Your task to perform on an android device: open wifi settings Image 0: 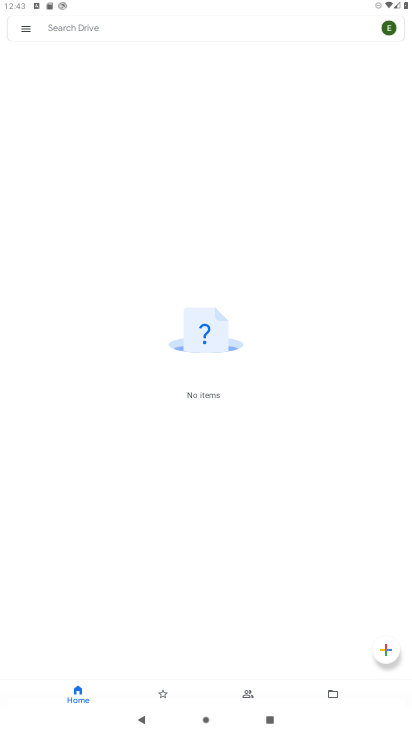
Step 0: press home button
Your task to perform on an android device: open wifi settings Image 1: 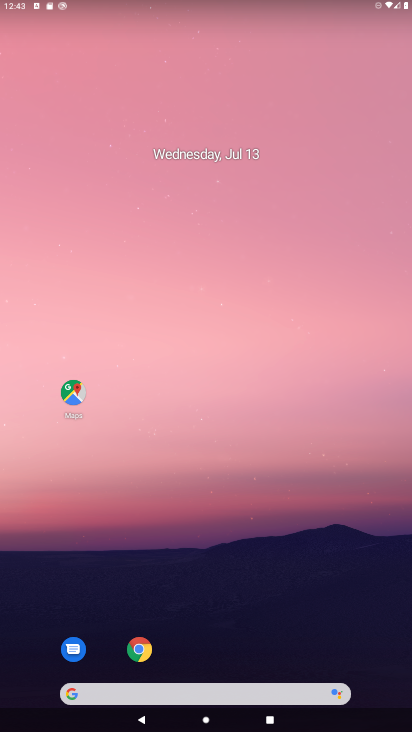
Step 1: drag from (370, 656) to (350, 144)
Your task to perform on an android device: open wifi settings Image 2: 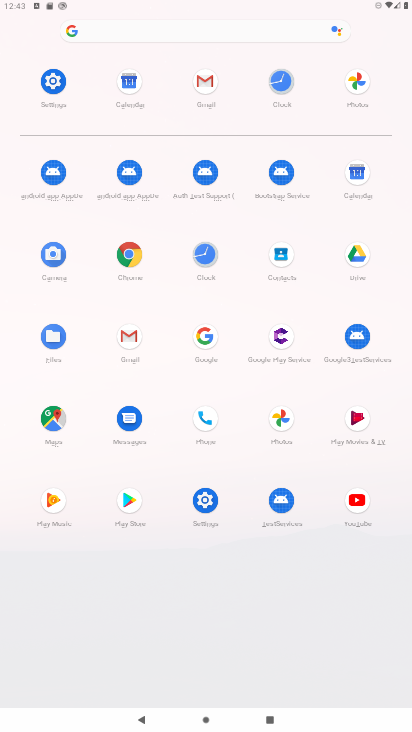
Step 2: click (205, 499)
Your task to perform on an android device: open wifi settings Image 3: 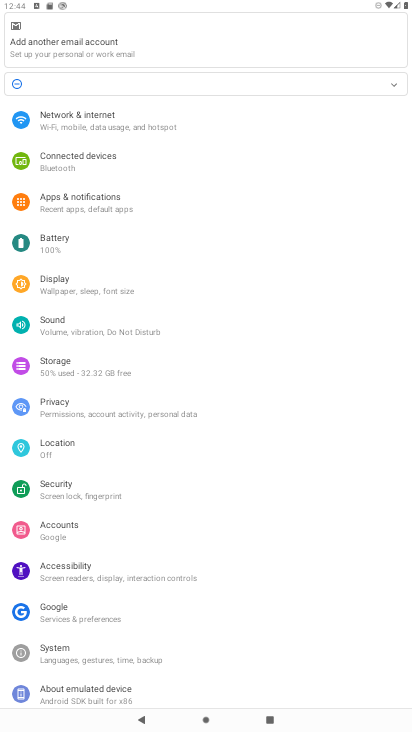
Step 3: click (69, 114)
Your task to perform on an android device: open wifi settings Image 4: 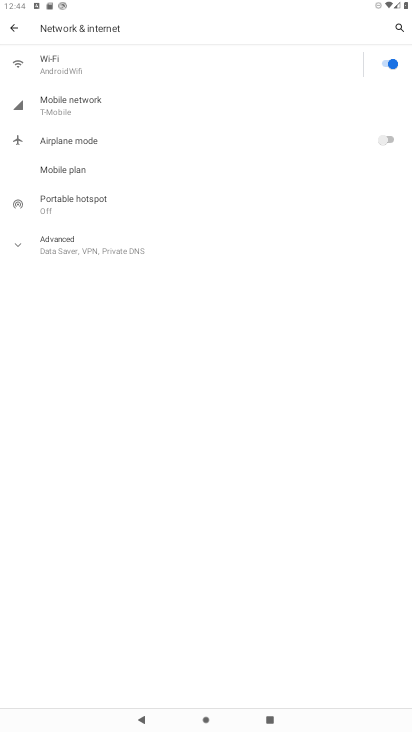
Step 4: click (37, 66)
Your task to perform on an android device: open wifi settings Image 5: 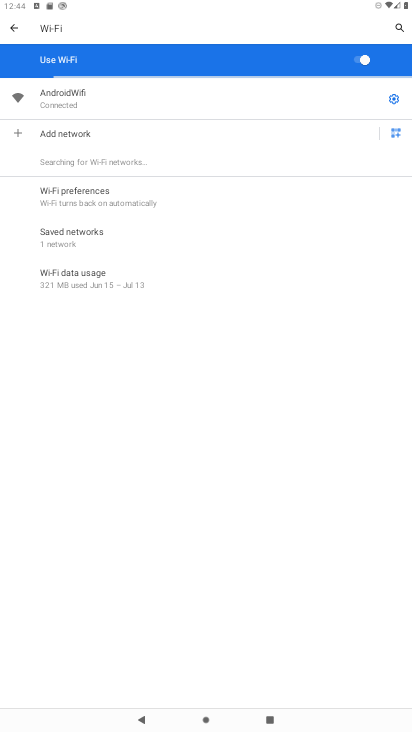
Step 5: task complete